Your task to perform on an android device: Search for sushi restaurants on Maps Image 0: 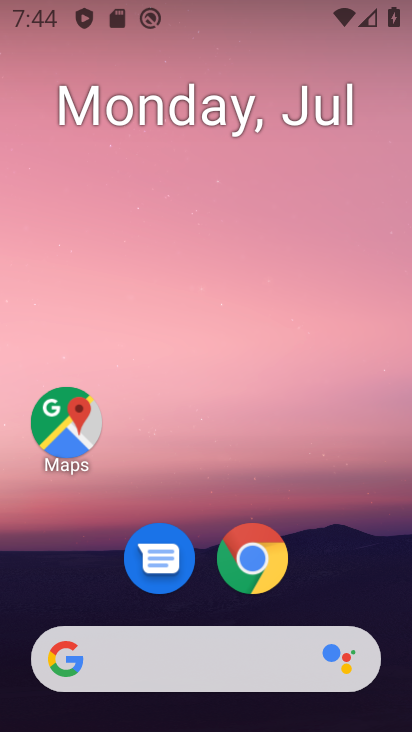
Step 0: click (75, 440)
Your task to perform on an android device: Search for sushi restaurants on Maps Image 1: 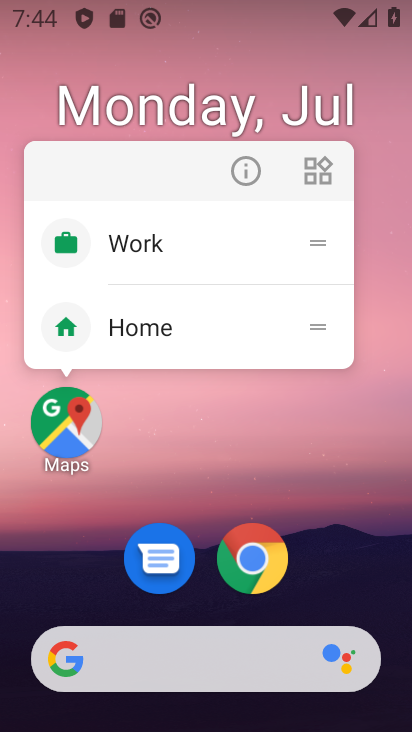
Step 1: click (75, 440)
Your task to perform on an android device: Search for sushi restaurants on Maps Image 2: 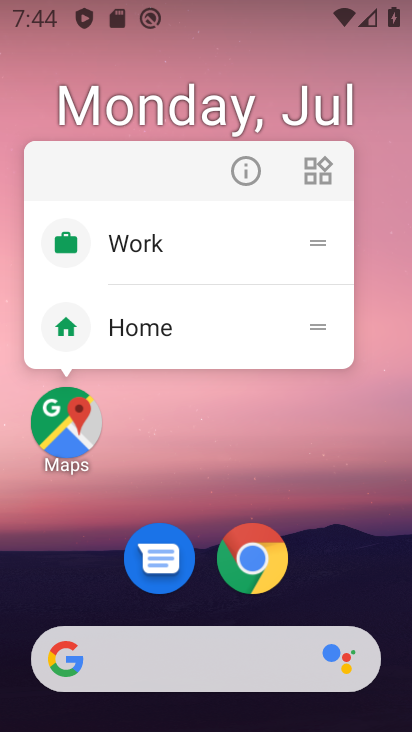
Step 2: click (75, 440)
Your task to perform on an android device: Search for sushi restaurants on Maps Image 3: 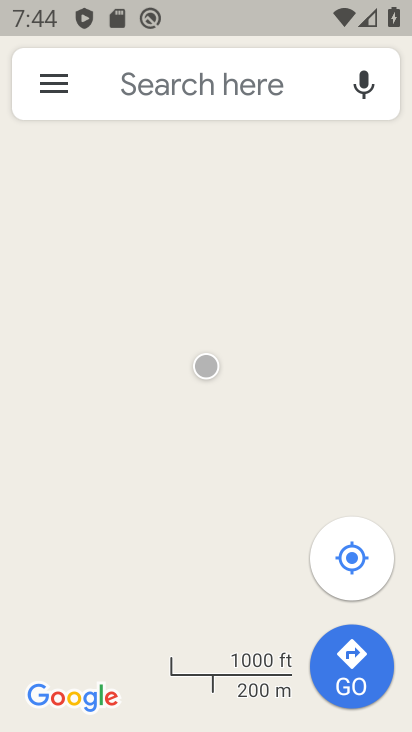
Step 3: click (246, 93)
Your task to perform on an android device: Search for sushi restaurants on Maps Image 4: 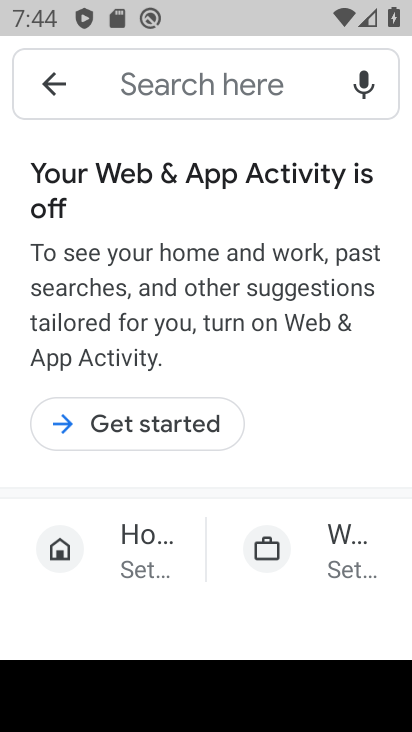
Step 4: type "sushi resraurants"
Your task to perform on an android device: Search for sushi restaurants on Maps Image 5: 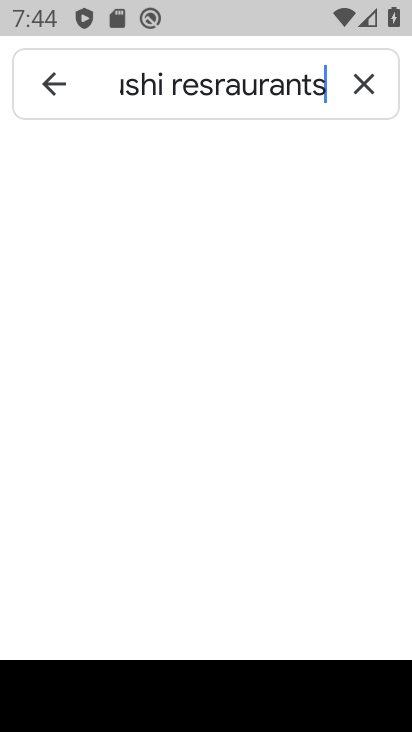
Step 5: type ""
Your task to perform on an android device: Search for sushi restaurants on Maps Image 6: 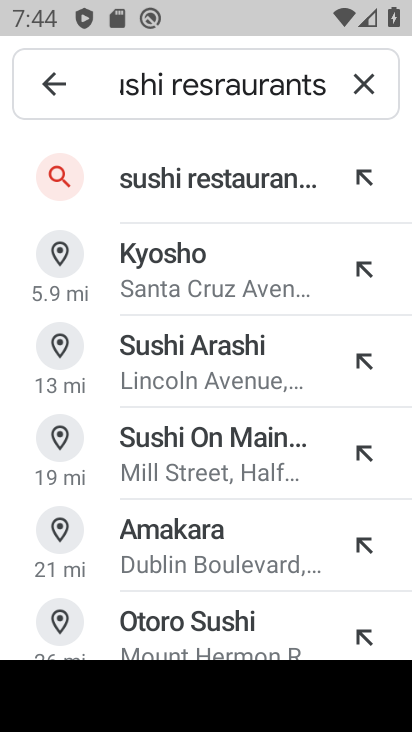
Step 6: click (262, 192)
Your task to perform on an android device: Search for sushi restaurants on Maps Image 7: 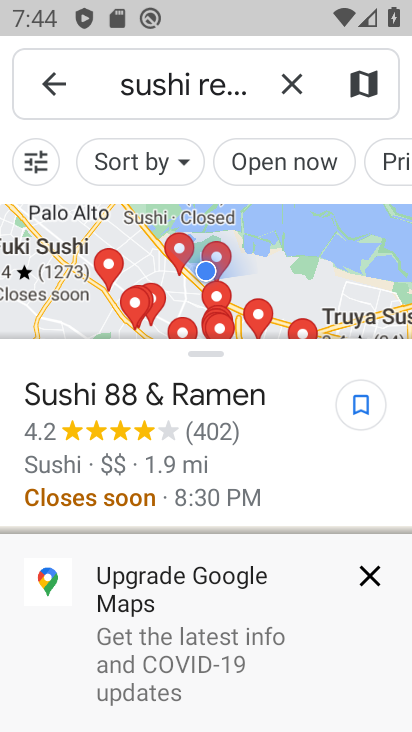
Step 7: click (369, 573)
Your task to perform on an android device: Search for sushi restaurants on Maps Image 8: 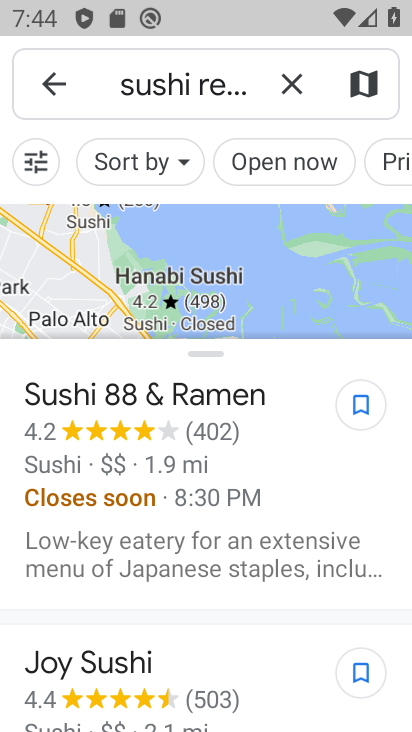
Step 8: task complete